Your task to perform on an android device: Open privacy settings Image 0: 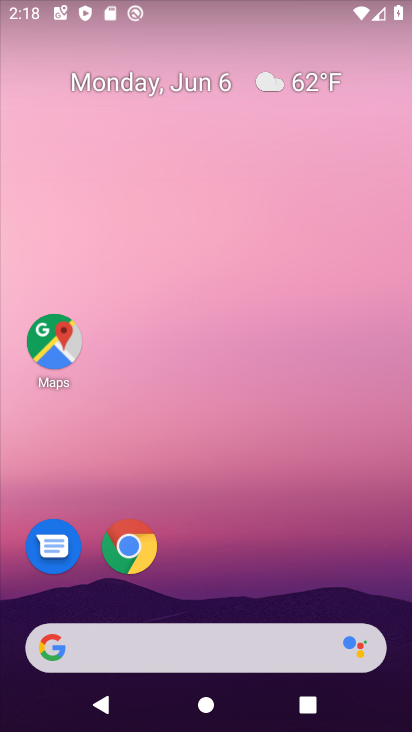
Step 0: drag from (314, 526) to (220, 148)
Your task to perform on an android device: Open privacy settings Image 1: 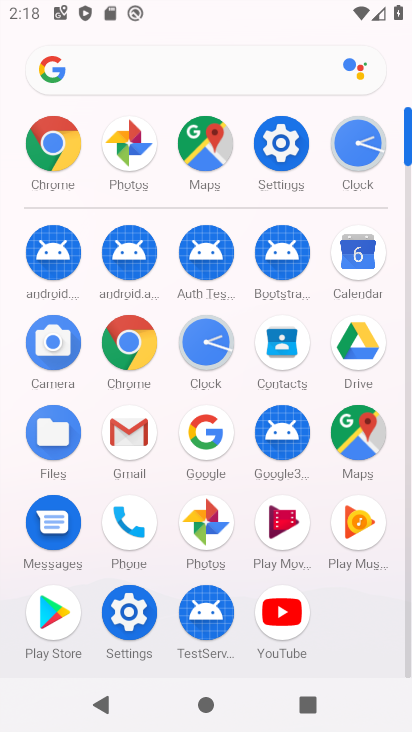
Step 1: click (283, 137)
Your task to perform on an android device: Open privacy settings Image 2: 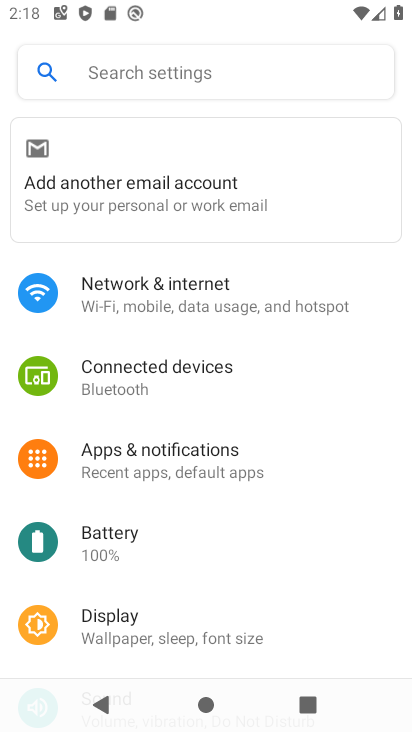
Step 2: drag from (285, 620) to (266, 196)
Your task to perform on an android device: Open privacy settings Image 3: 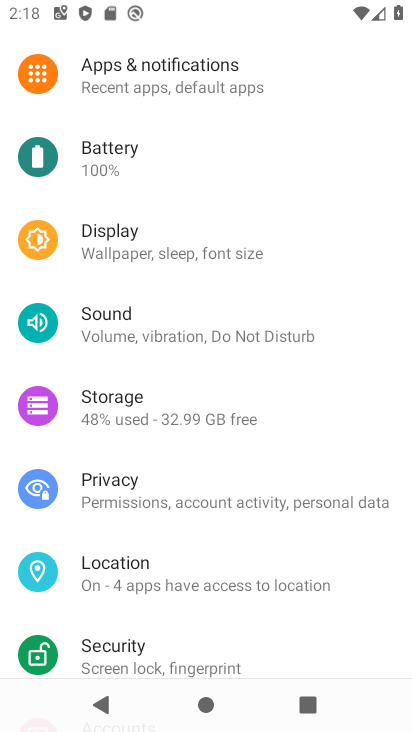
Step 3: click (167, 509)
Your task to perform on an android device: Open privacy settings Image 4: 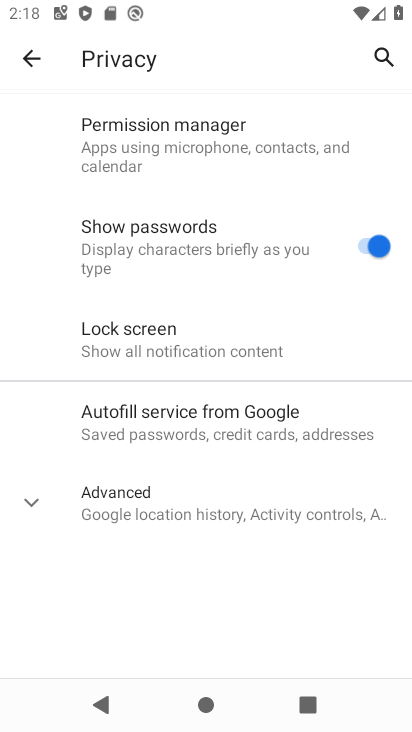
Step 4: task complete